Your task to perform on an android device: toggle location history Image 0: 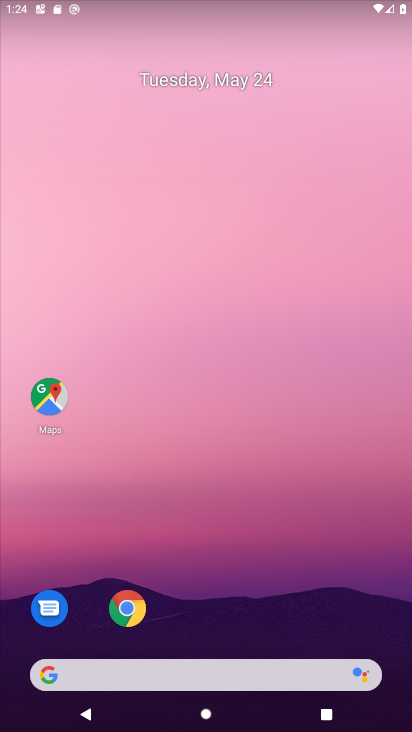
Step 0: drag from (298, 614) to (225, 485)
Your task to perform on an android device: toggle location history Image 1: 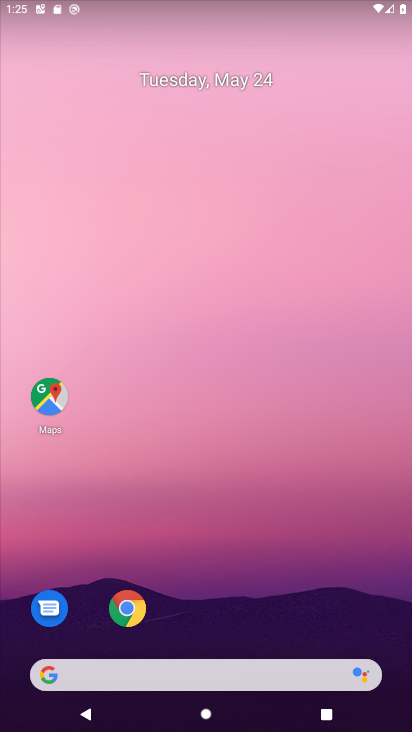
Step 1: drag from (311, 626) to (311, 379)
Your task to perform on an android device: toggle location history Image 2: 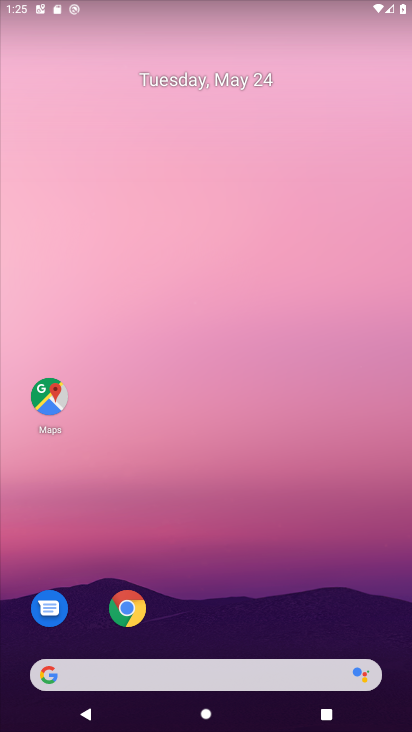
Step 2: drag from (307, 580) to (304, 41)
Your task to perform on an android device: toggle location history Image 3: 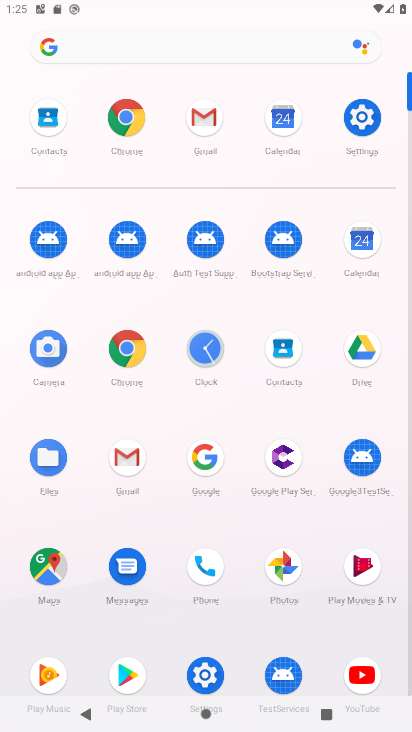
Step 3: click (368, 124)
Your task to perform on an android device: toggle location history Image 4: 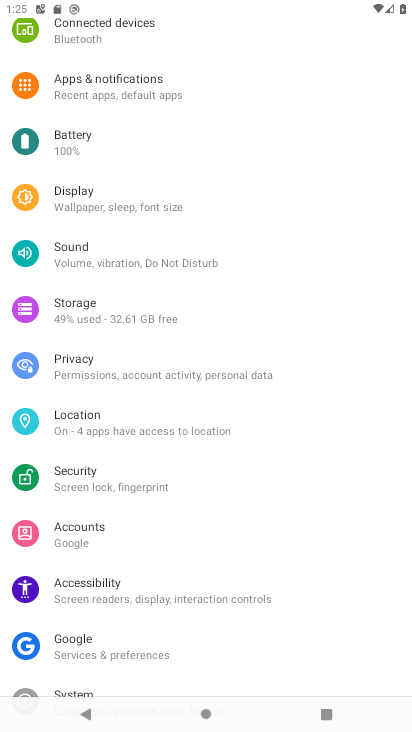
Step 4: click (186, 443)
Your task to perform on an android device: toggle location history Image 5: 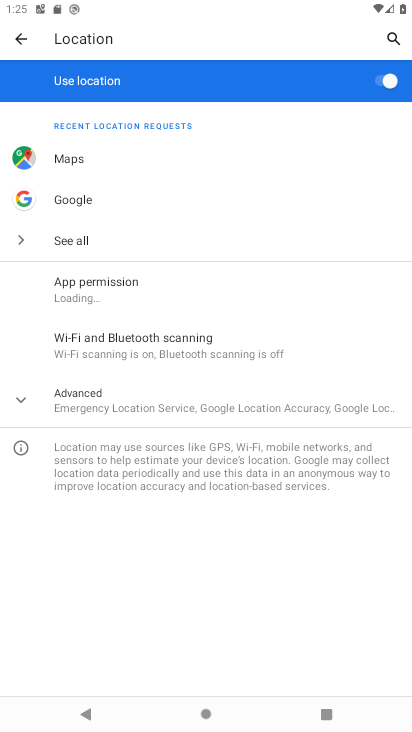
Step 5: click (216, 381)
Your task to perform on an android device: toggle location history Image 6: 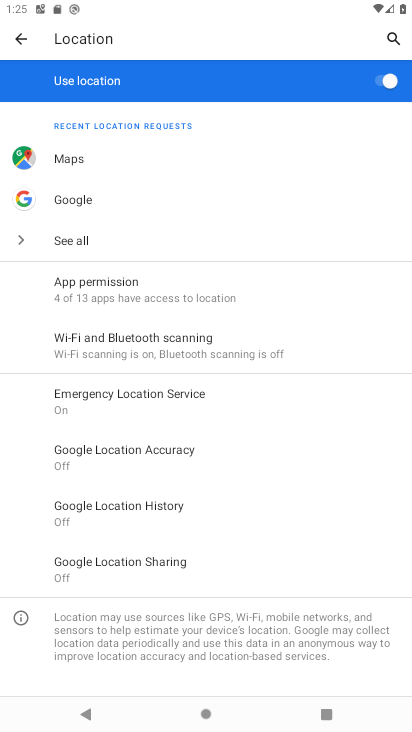
Step 6: click (249, 508)
Your task to perform on an android device: toggle location history Image 7: 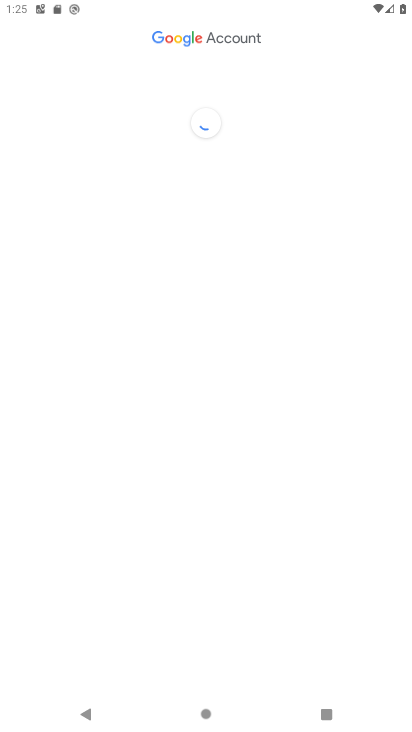
Step 7: task complete